Your task to perform on an android device: Open wifi settings Image 0: 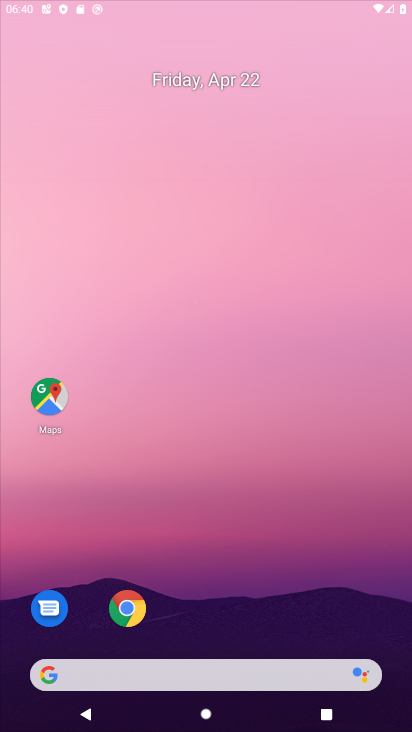
Step 0: click (135, 238)
Your task to perform on an android device: Open wifi settings Image 1: 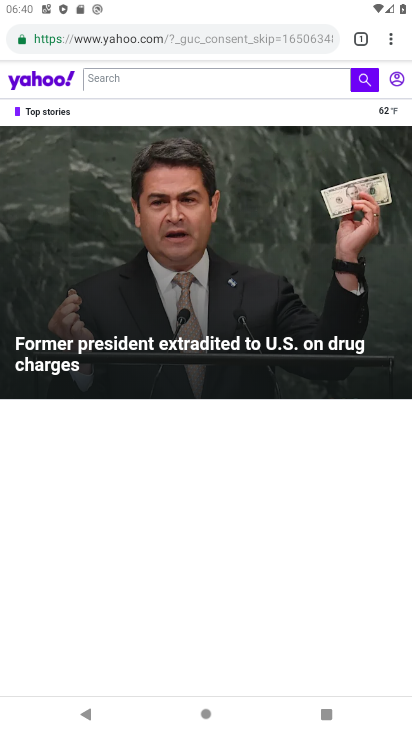
Step 1: press home button
Your task to perform on an android device: Open wifi settings Image 2: 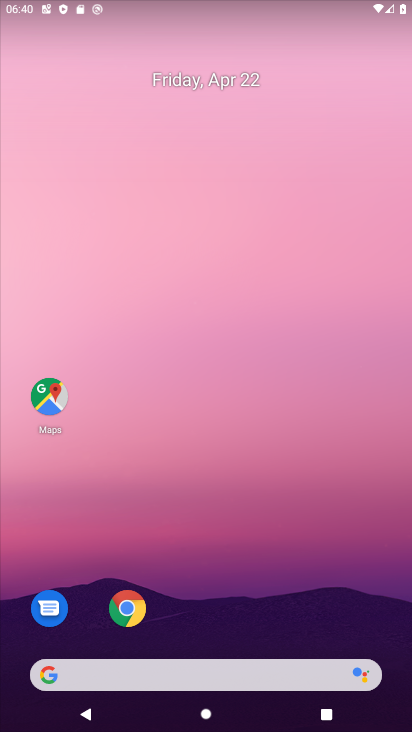
Step 2: drag from (217, 577) to (197, 224)
Your task to perform on an android device: Open wifi settings Image 3: 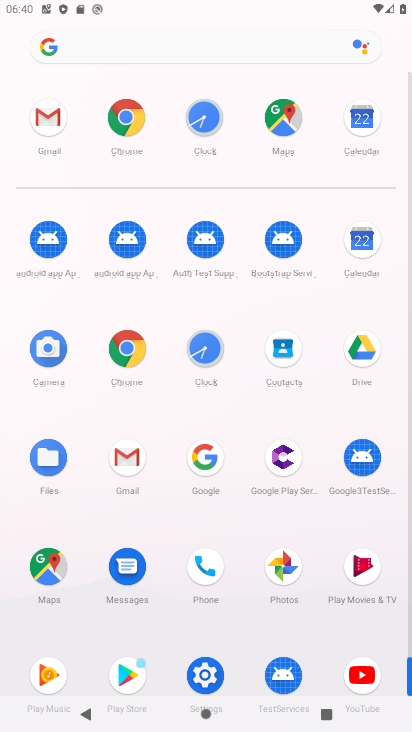
Step 3: click (209, 679)
Your task to perform on an android device: Open wifi settings Image 4: 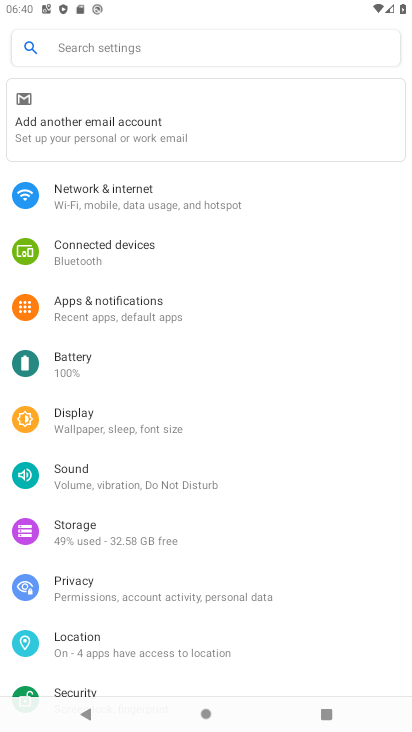
Step 4: click (117, 211)
Your task to perform on an android device: Open wifi settings Image 5: 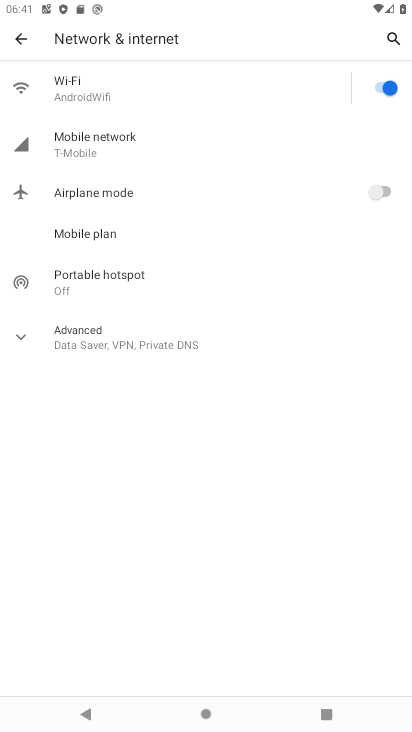
Step 5: click (85, 93)
Your task to perform on an android device: Open wifi settings Image 6: 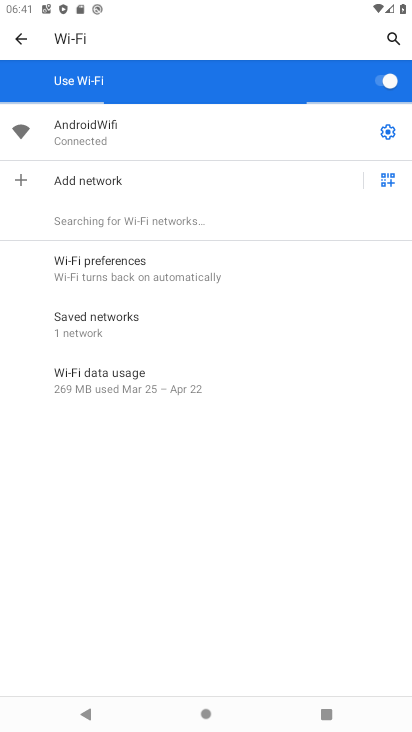
Step 6: task complete